Your task to perform on an android device: Turn off the flashlight Image 0: 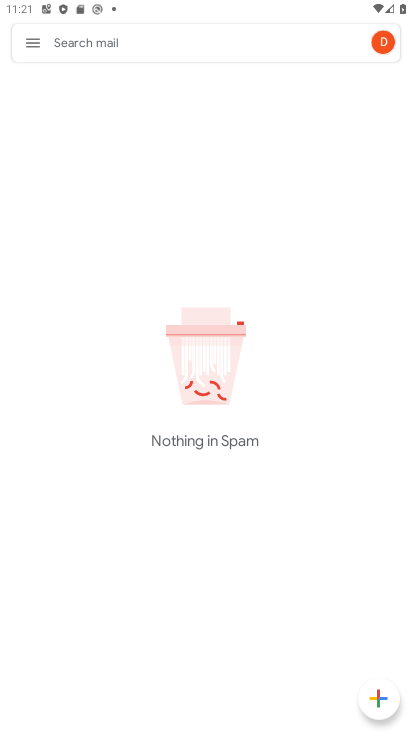
Step 0: press home button
Your task to perform on an android device: Turn off the flashlight Image 1: 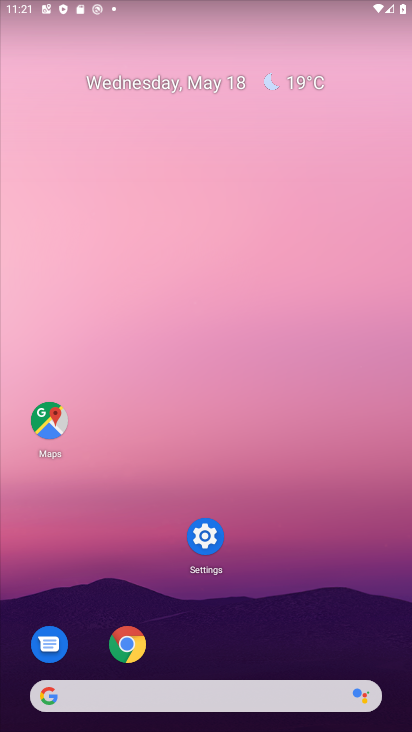
Step 1: task complete